Your task to perform on an android device: toggle improve location accuracy Image 0: 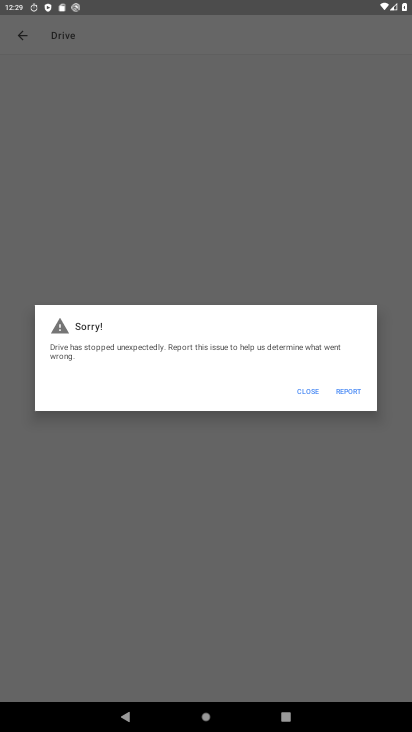
Step 0: press home button
Your task to perform on an android device: toggle improve location accuracy Image 1: 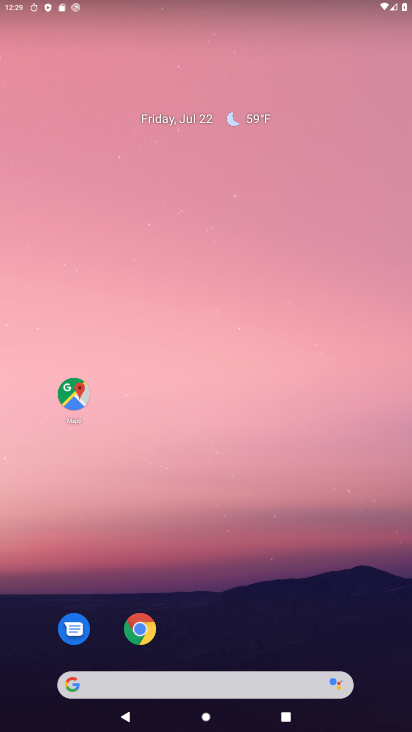
Step 1: drag from (266, 655) to (304, 117)
Your task to perform on an android device: toggle improve location accuracy Image 2: 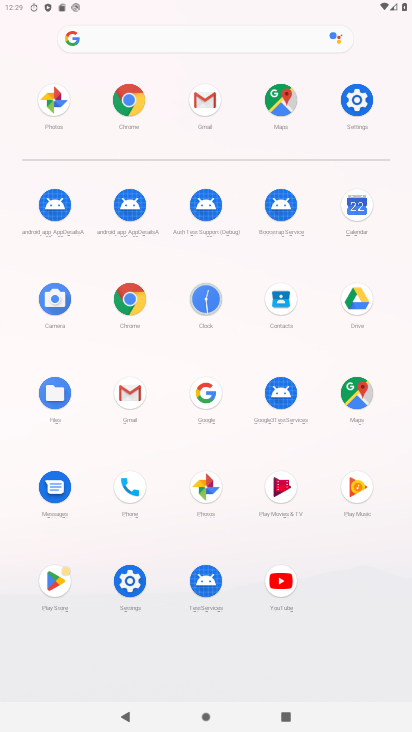
Step 2: click (354, 93)
Your task to perform on an android device: toggle improve location accuracy Image 3: 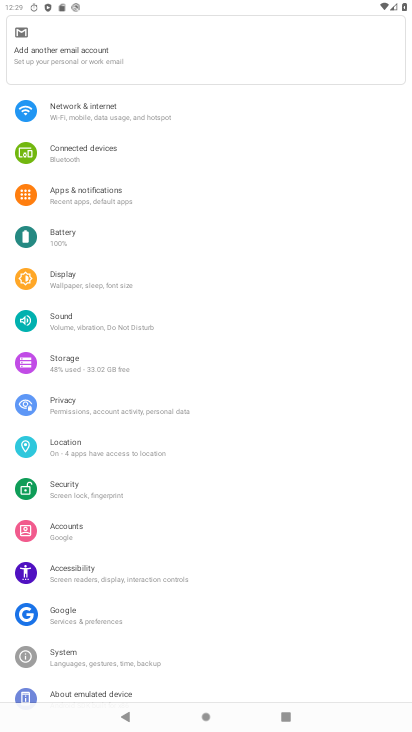
Step 3: click (98, 450)
Your task to perform on an android device: toggle improve location accuracy Image 4: 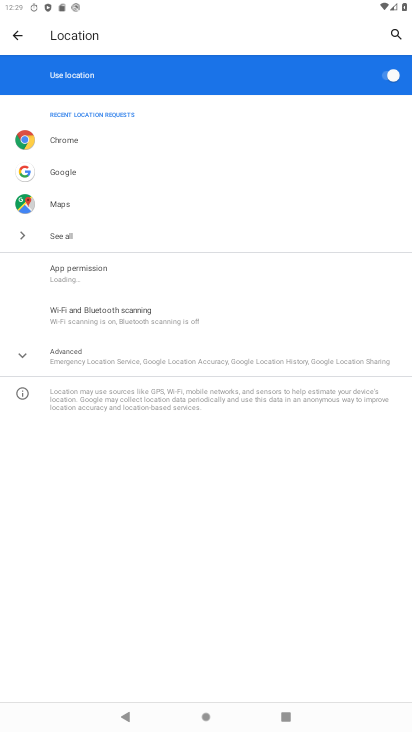
Step 4: click (149, 354)
Your task to perform on an android device: toggle improve location accuracy Image 5: 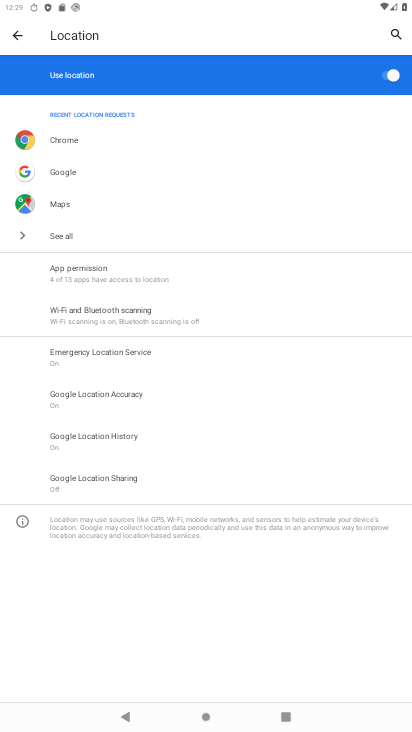
Step 5: click (142, 406)
Your task to perform on an android device: toggle improve location accuracy Image 6: 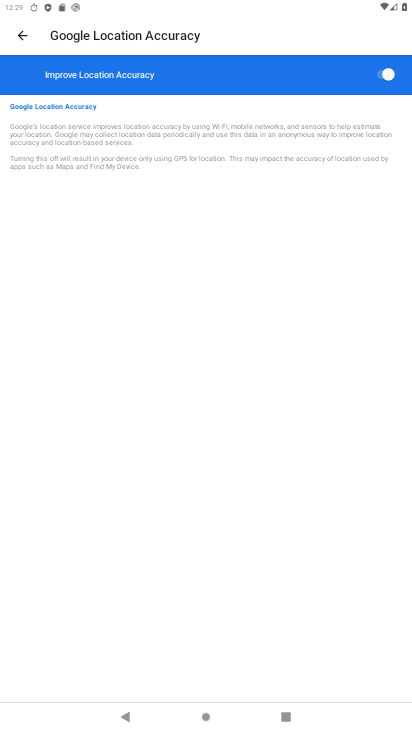
Step 6: click (385, 74)
Your task to perform on an android device: toggle improve location accuracy Image 7: 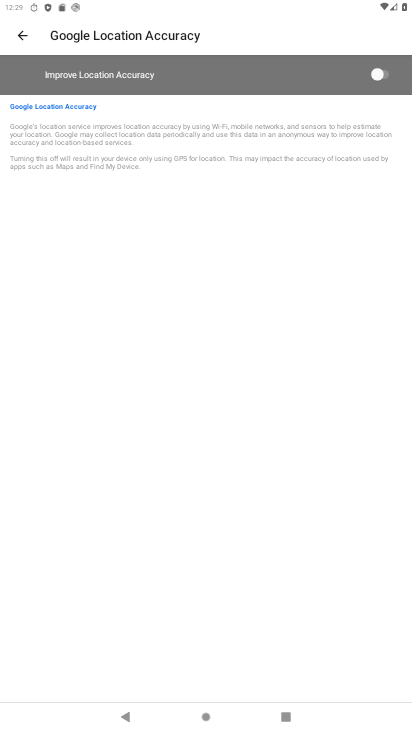
Step 7: task complete